Your task to perform on an android device: Go to notification settings Image 0: 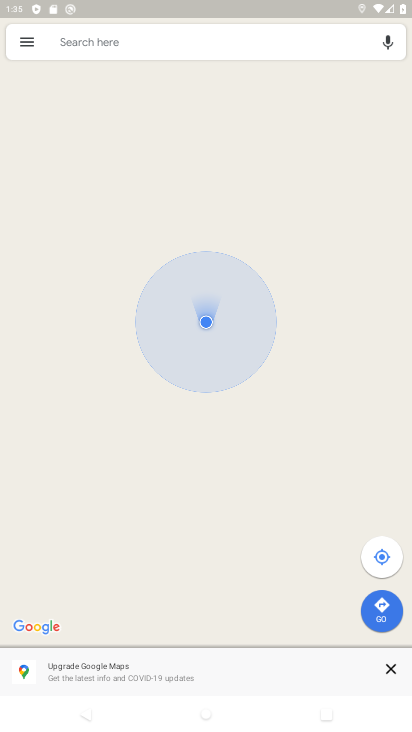
Step 0: press home button
Your task to perform on an android device: Go to notification settings Image 1: 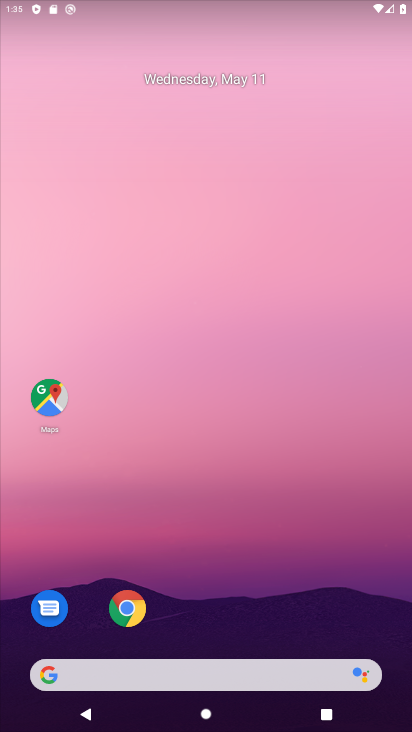
Step 1: drag from (204, 596) to (211, 260)
Your task to perform on an android device: Go to notification settings Image 2: 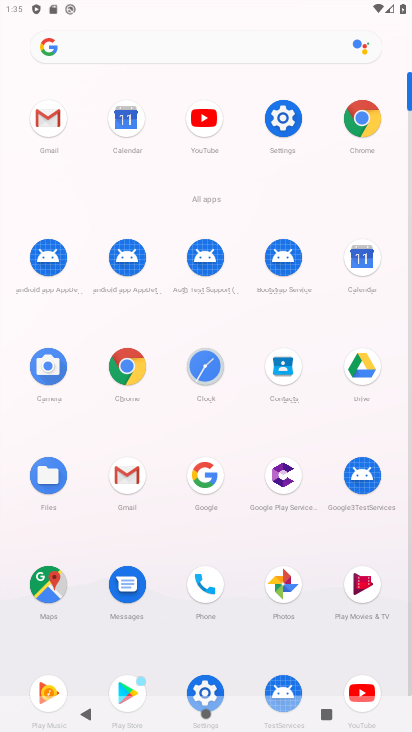
Step 2: click (279, 120)
Your task to perform on an android device: Go to notification settings Image 3: 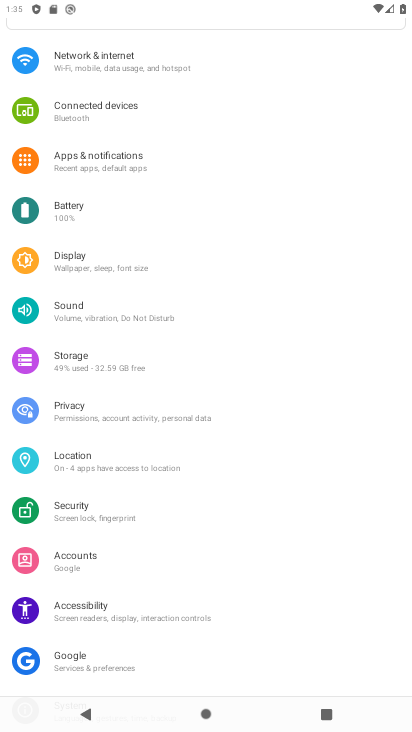
Step 3: drag from (241, 115) to (275, 485)
Your task to perform on an android device: Go to notification settings Image 4: 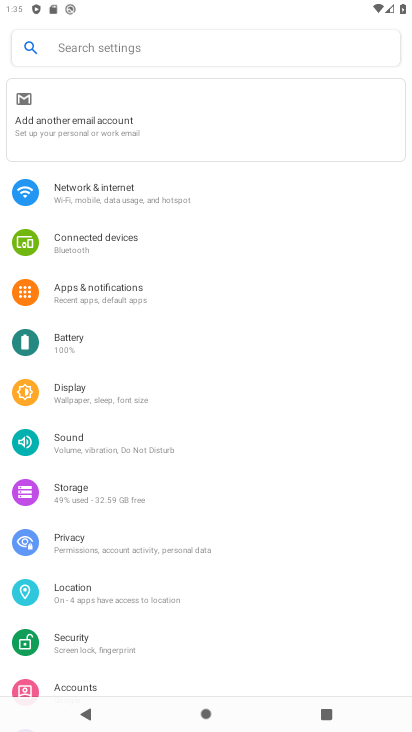
Step 4: click (109, 295)
Your task to perform on an android device: Go to notification settings Image 5: 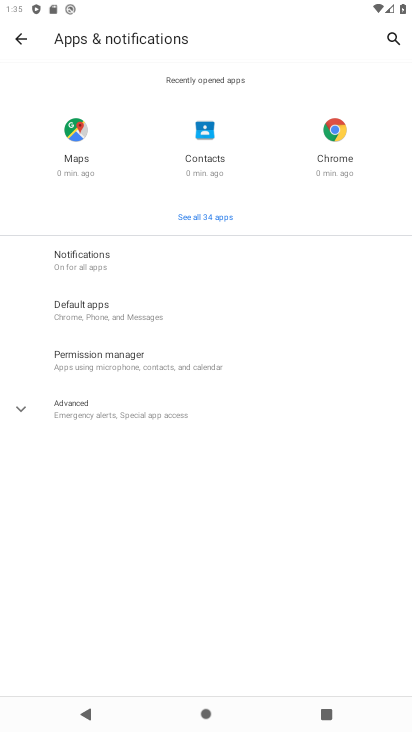
Step 5: click (96, 268)
Your task to perform on an android device: Go to notification settings Image 6: 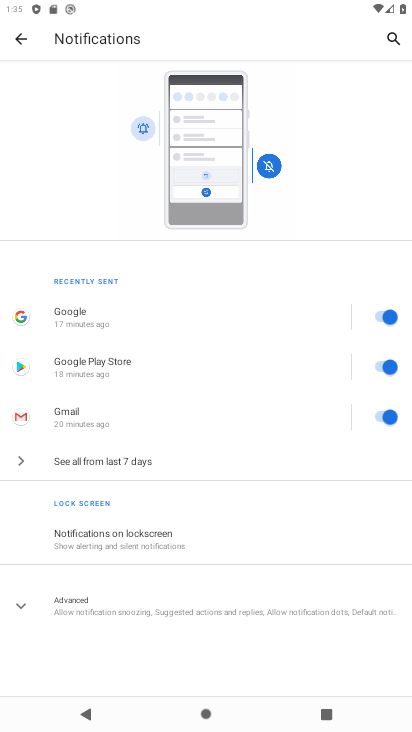
Step 6: drag from (193, 606) to (222, 200)
Your task to perform on an android device: Go to notification settings Image 7: 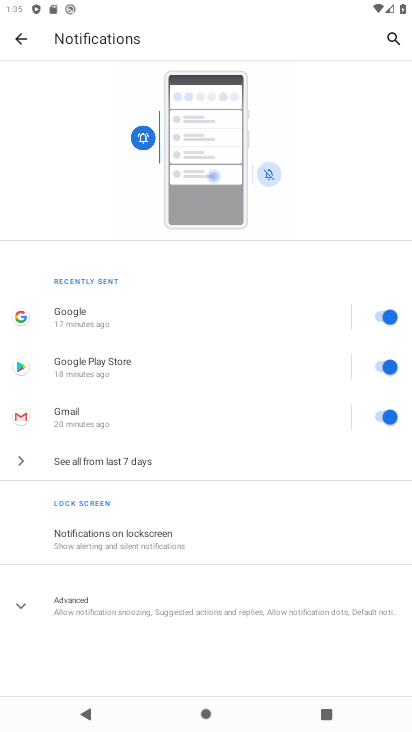
Step 7: click (208, 536)
Your task to perform on an android device: Go to notification settings Image 8: 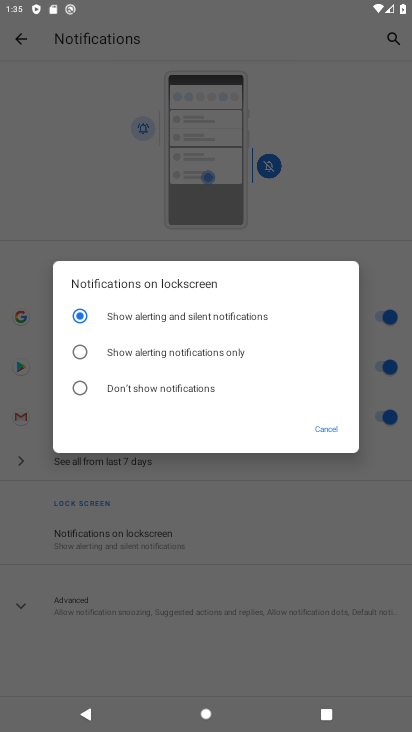
Step 8: click (315, 426)
Your task to perform on an android device: Go to notification settings Image 9: 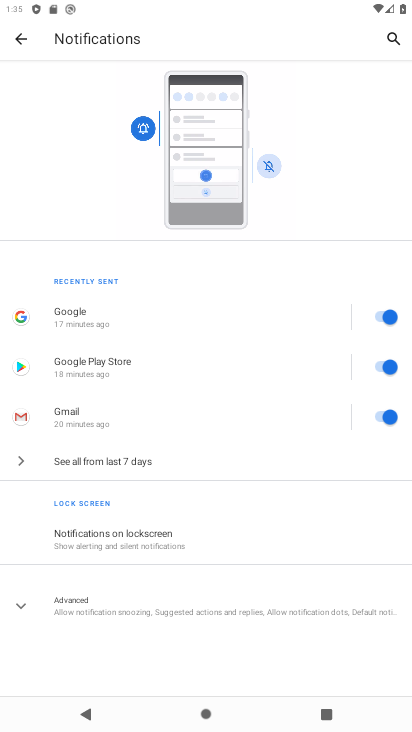
Step 9: task complete